Your task to perform on an android device: Go to CNN.com Image 0: 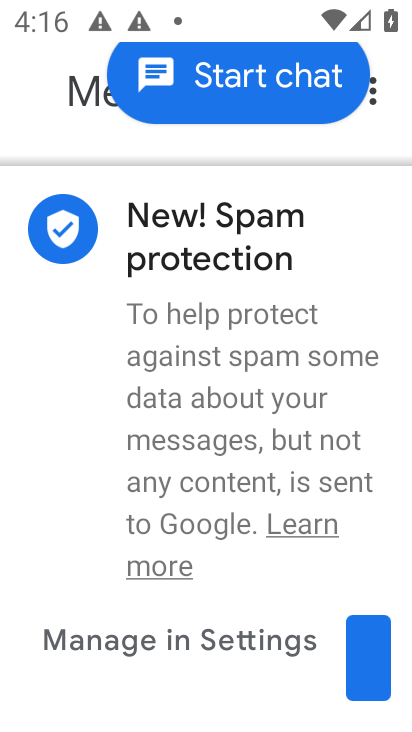
Step 0: press home button
Your task to perform on an android device: Go to CNN.com Image 1: 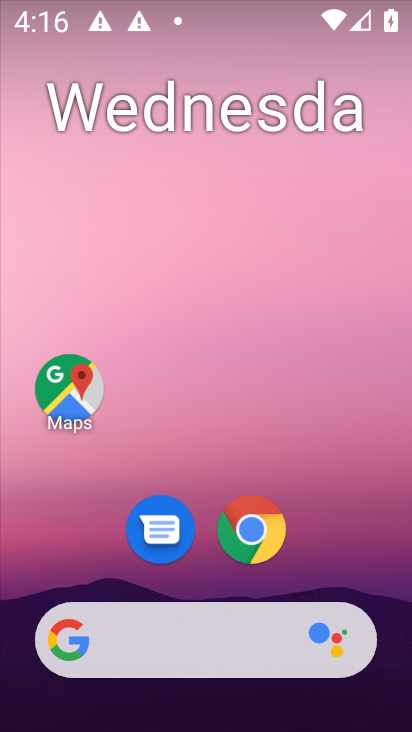
Step 1: click (252, 533)
Your task to perform on an android device: Go to CNN.com Image 2: 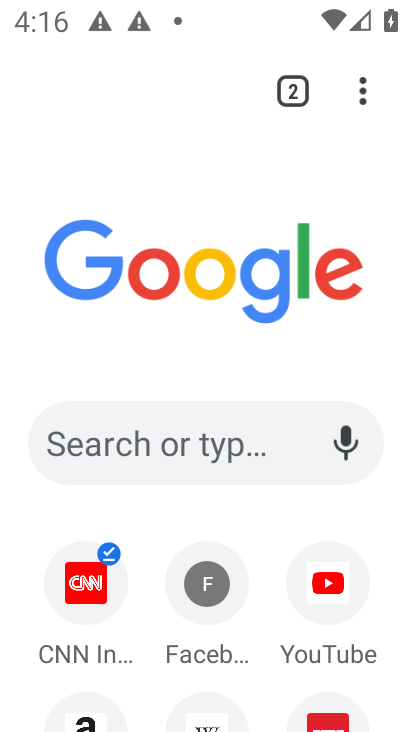
Step 2: click (41, 607)
Your task to perform on an android device: Go to CNN.com Image 3: 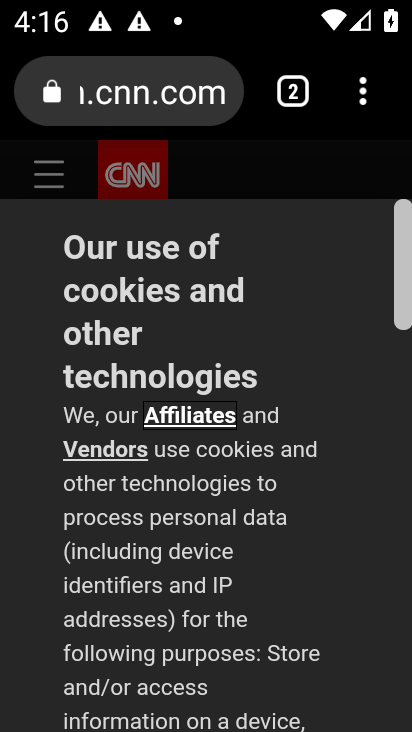
Step 3: task complete